Your task to perform on an android device: Open Chrome and go to settings Image 0: 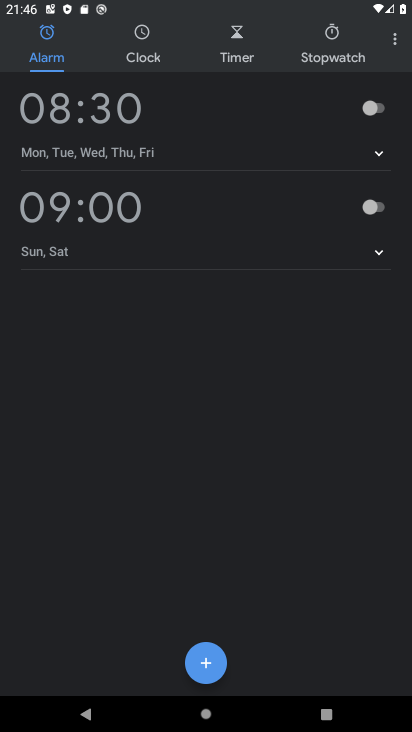
Step 0: press home button
Your task to perform on an android device: Open Chrome and go to settings Image 1: 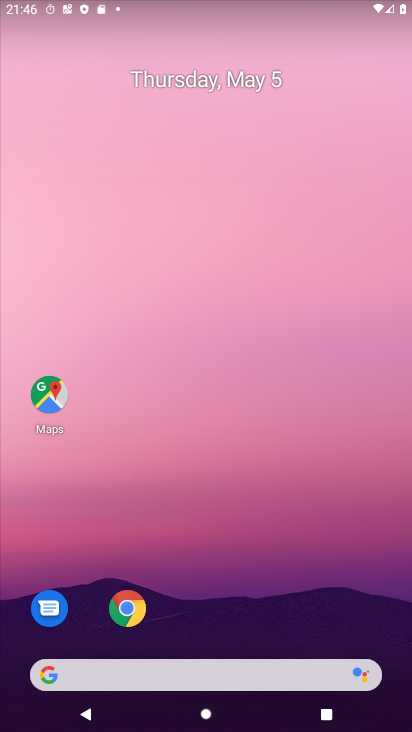
Step 1: drag from (221, 613) to (203, 52)
Your task to perform on an android device: Open Chrome and go to settings Image 2: 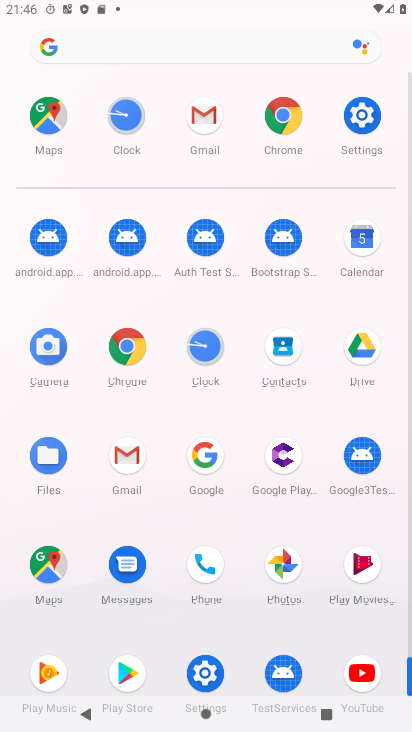
Step 2: click (116, 358)
Your task to perform on an android device: Open Chrome and go to settings Image 3: 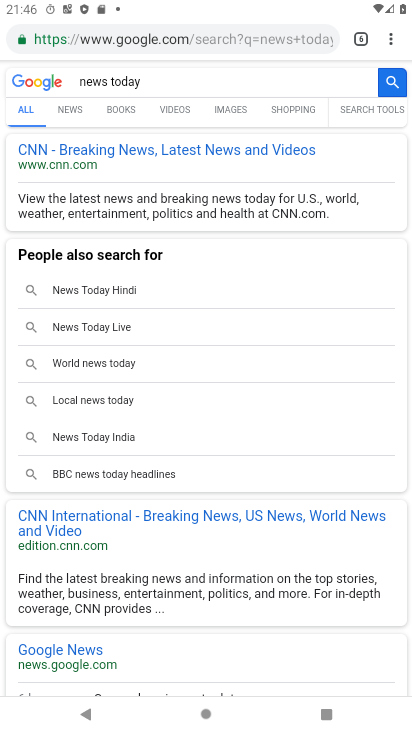
Step 3: click (387, 40)
Your task to perform on an android device: Open Chrome and go to settings Image 4: 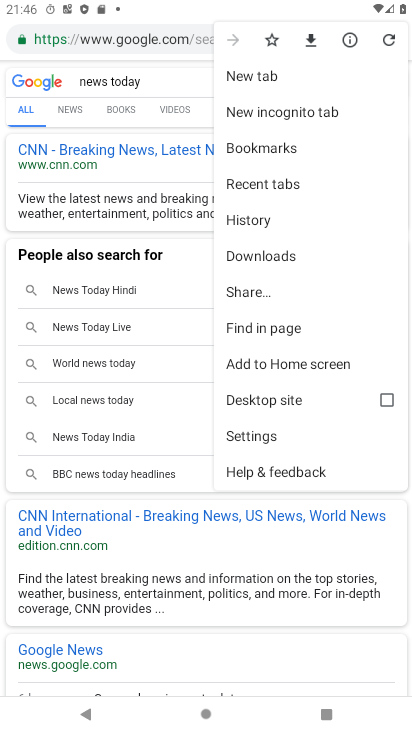
Step 4: click (278, 438)
Your task to perform on an android device: Open Chrome and go to settings Image 5: 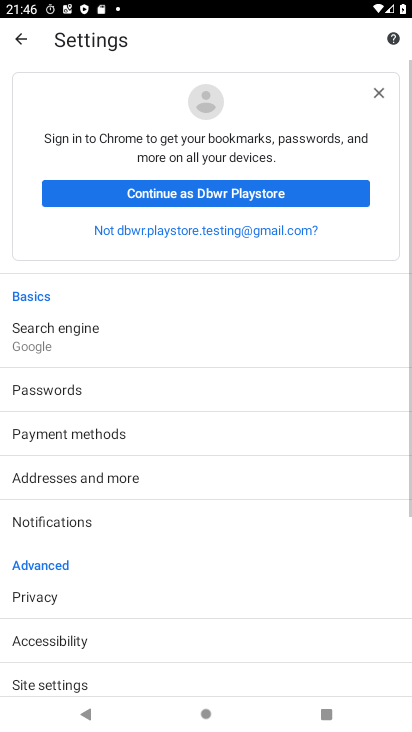
Step 5: task complete